Your task to perform on an android device: set an alarm Image 0: 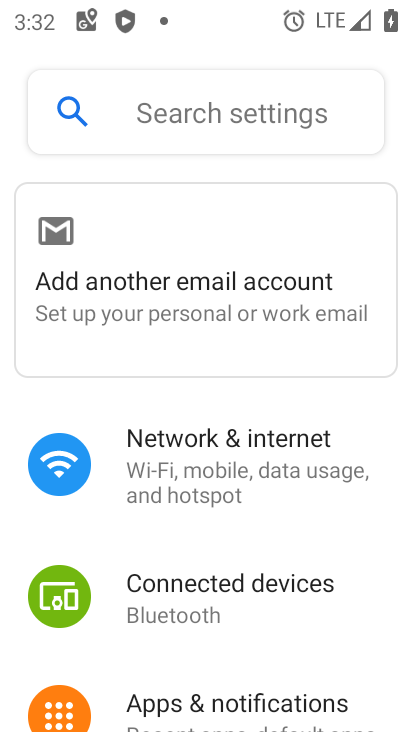
Step 0: press back button
Your task to perform on an android device: set an alarm Image 1: 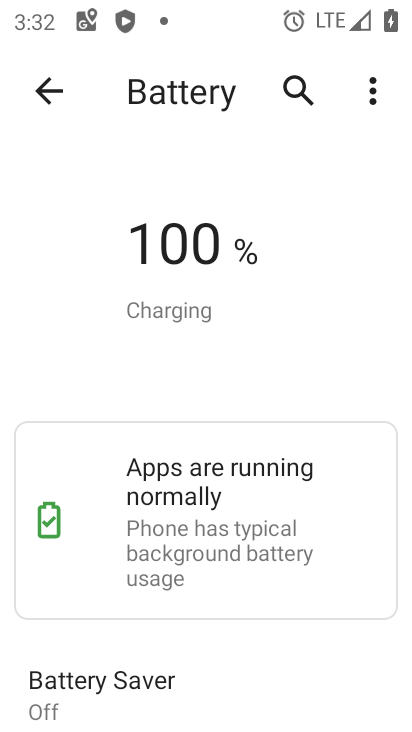
Step 1: click (42, 98)
Your task to perform on an android device: set an alarm Image 2: 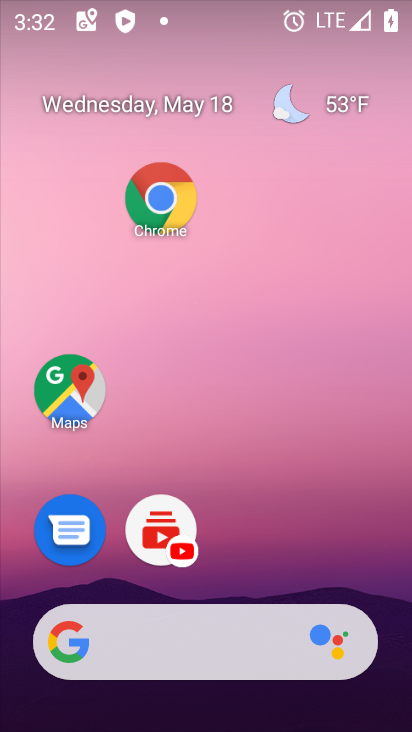
Step 2: drag from (260, 665) to (227, 244)
Your task to perform on an android device: set an alarm Image 3: 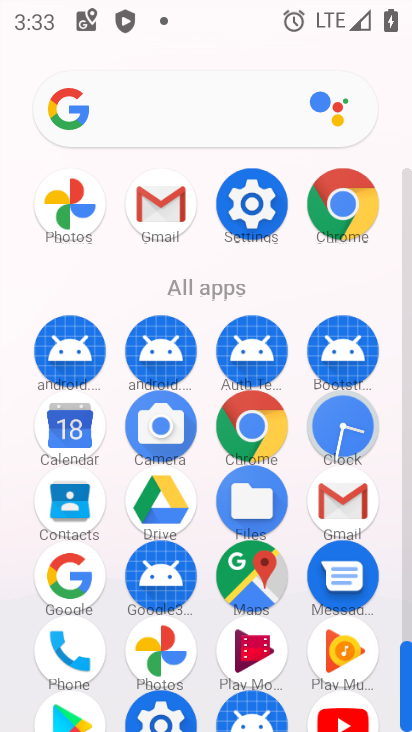
Step 3: click (345, 440)
Your task to perform on an android device: set an alarm Image 4: 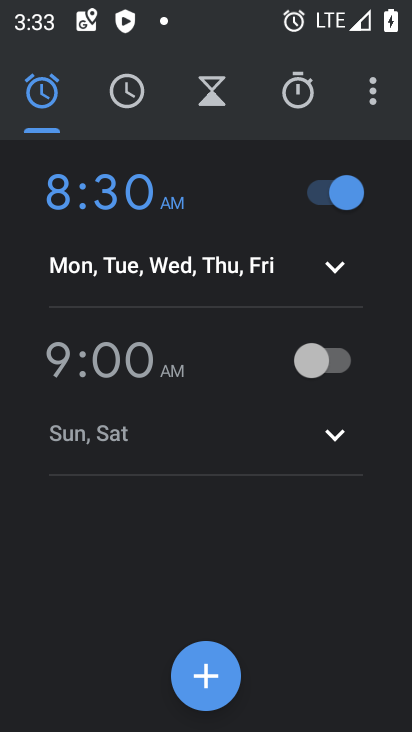
Step 4: click (299, 360)
Your task to perform on an android device: set an alarm Image 5: 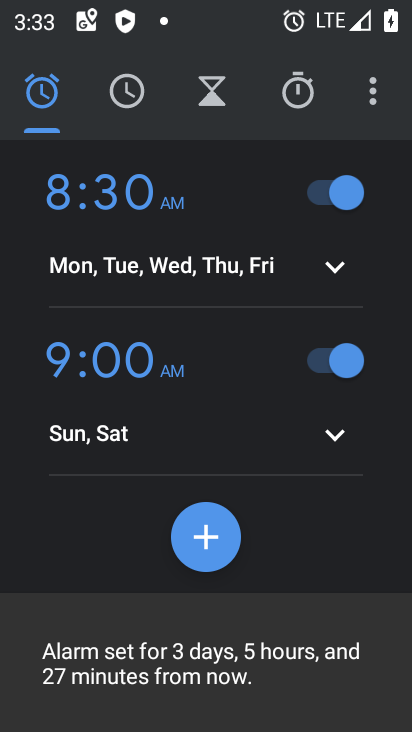
Step 5: task complete